Your task to perform on an android device: toggle wifi Image 0: 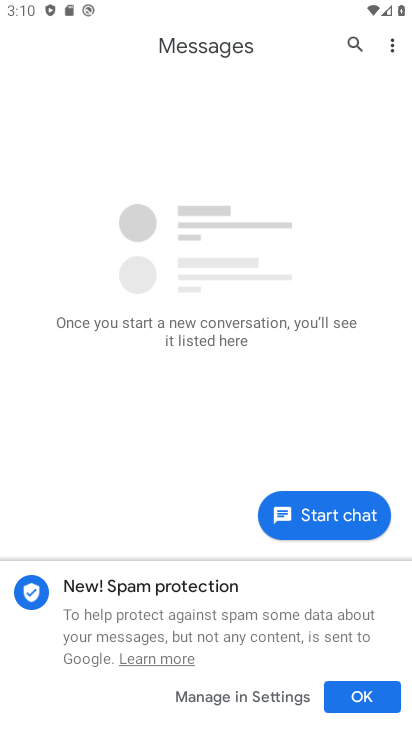
Step 0: press home button
Your task to perform on an android device: toggle wifi Image 1: 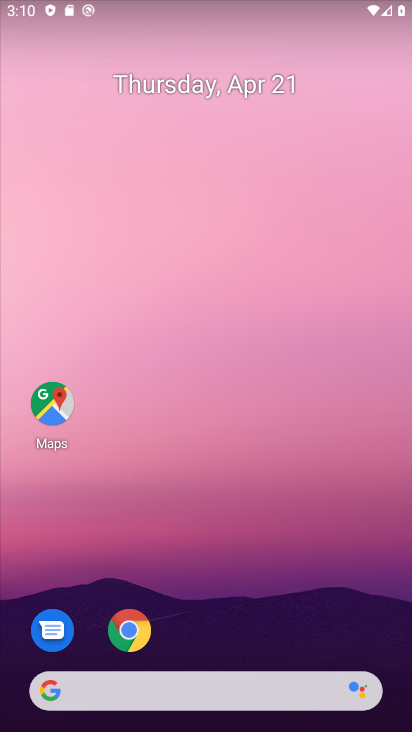
Step 1: drag from (297, 35) to (333, 403)
Your task to perform on an android device: toggle wifi Image 2: 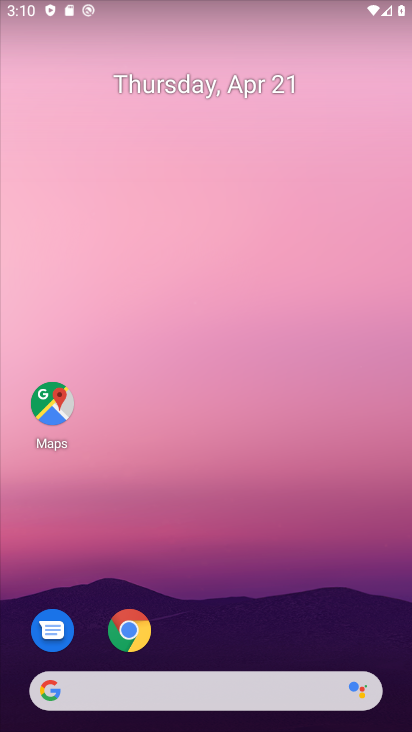
Step 2: drag from (224, 10) to (301, 368)
Your task to perform on an android device: toggle wifi Image 3: 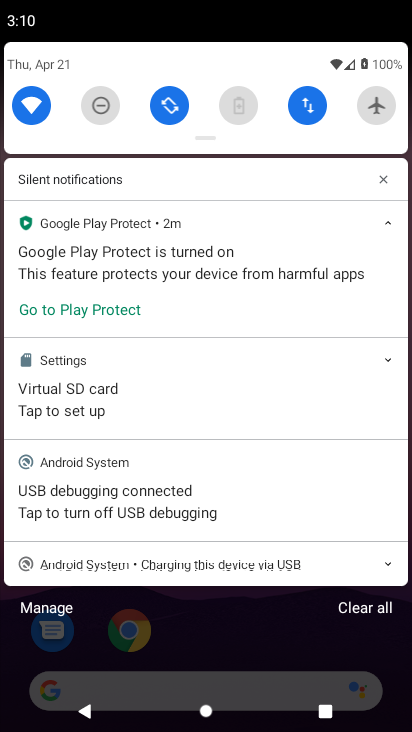
Step 3: click (23, 106)
Your task to perform on an android device: toggle wifi Image 4: 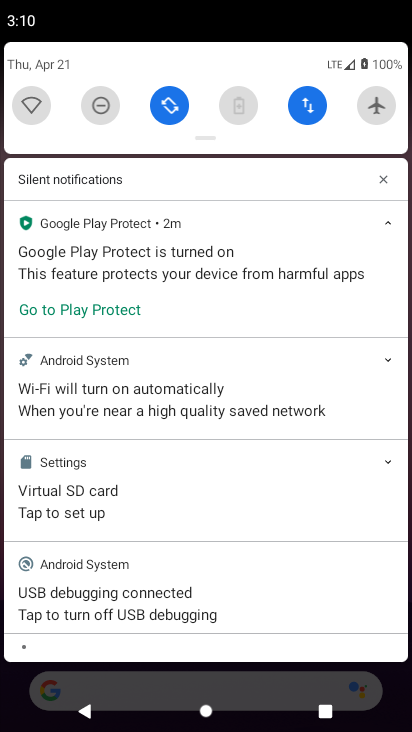
Step 4: task complete